Your task to perform on an android device: Open display settings Image 0: 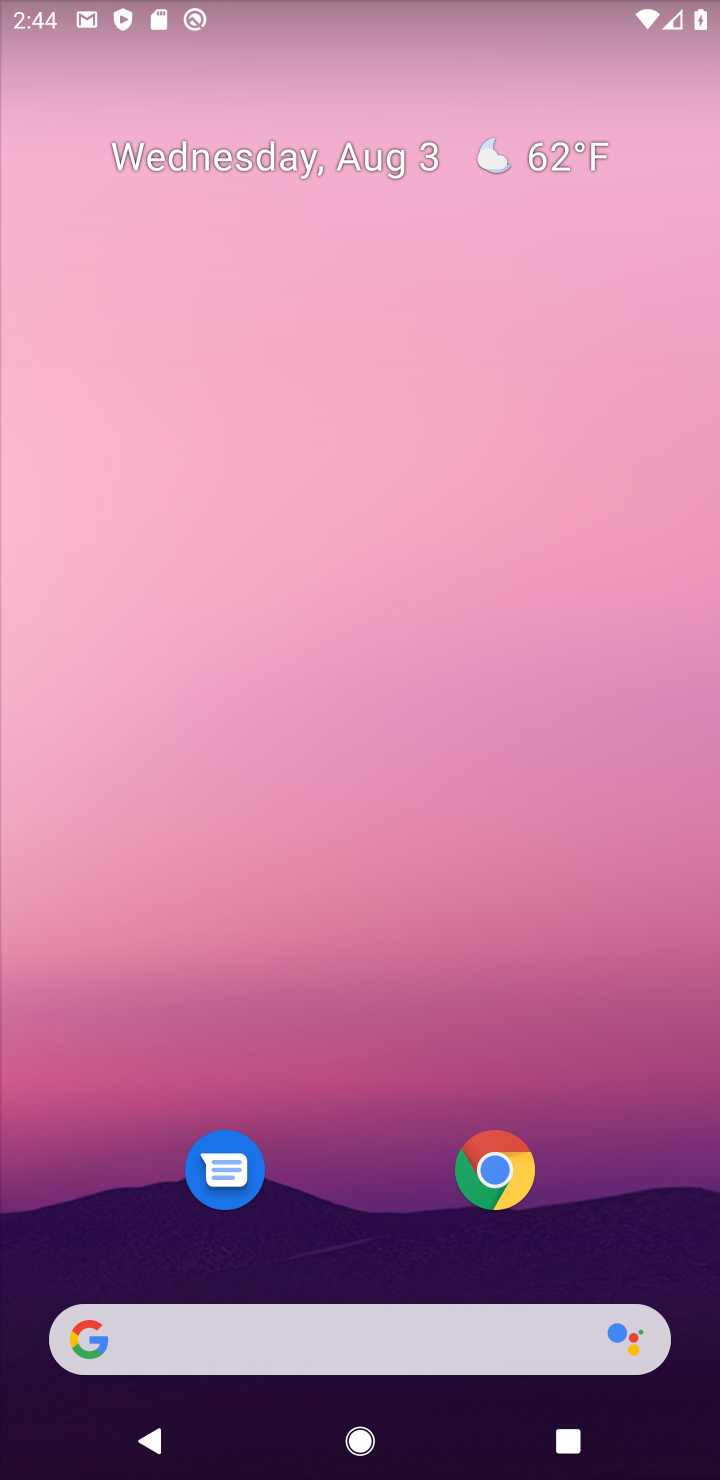
Step 0: drag from (220, 685) to (301, 357)
Your task to perform on an android device: Open display settings Image 1: 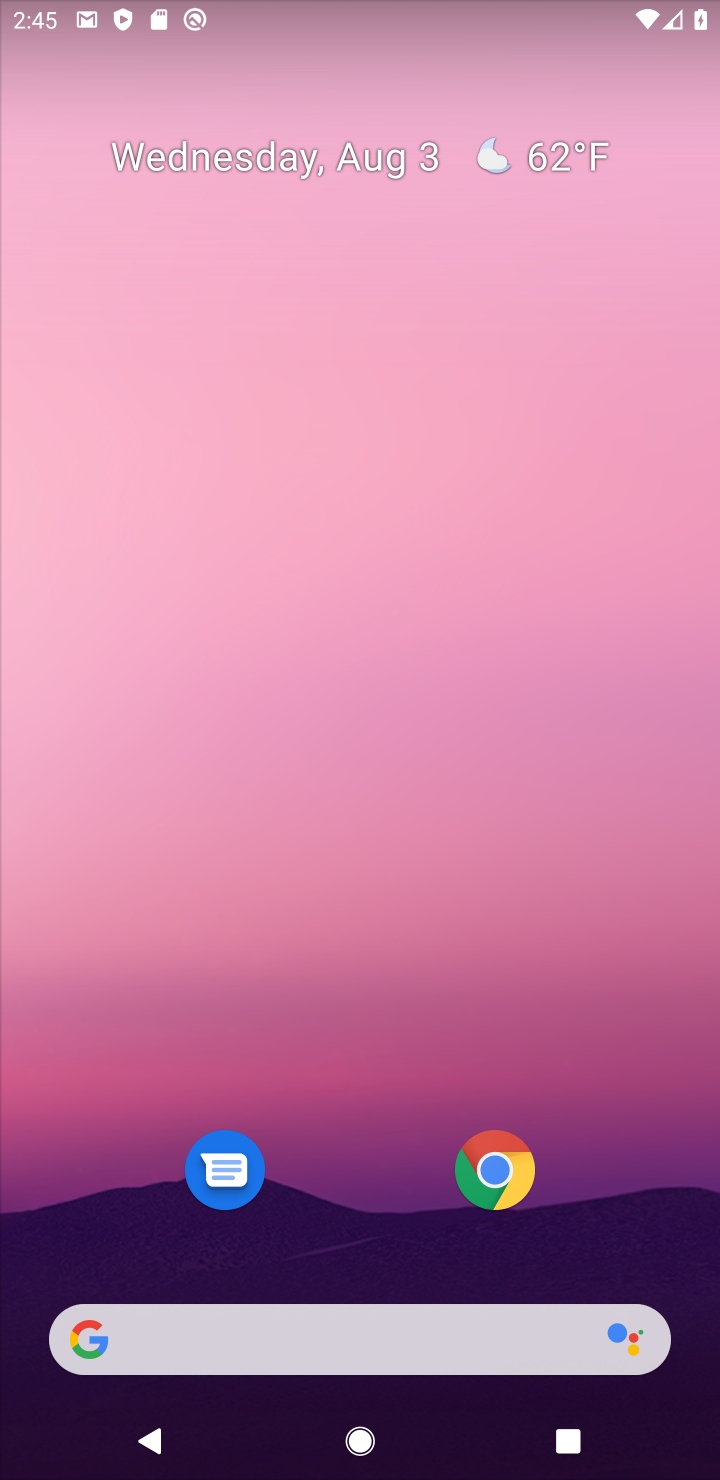
Step 1: click (467, 154)
Your task to perform on an android device: Open display settings Image 2: 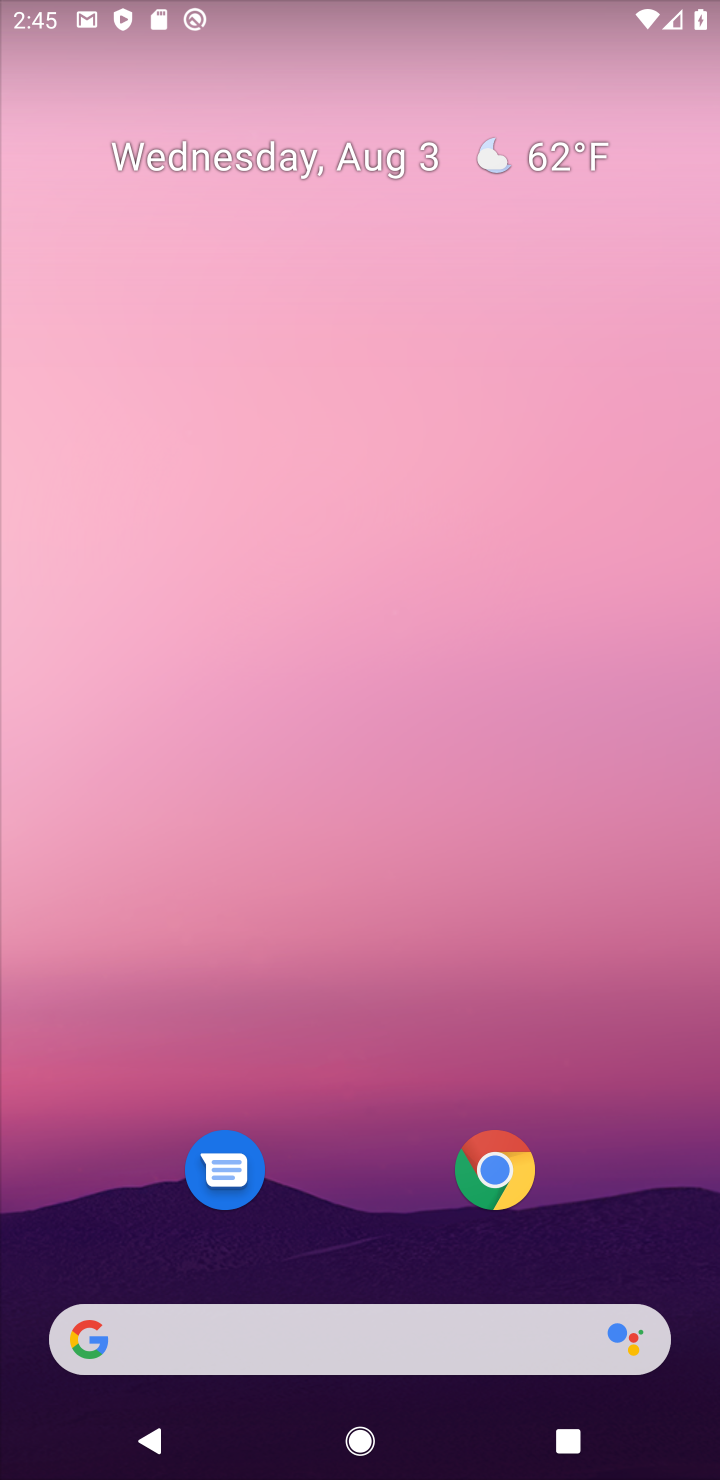
Step 2: drag from (363, 1162) to (402, 292)
Your task to perform on an android device: Open display settings Image 3: 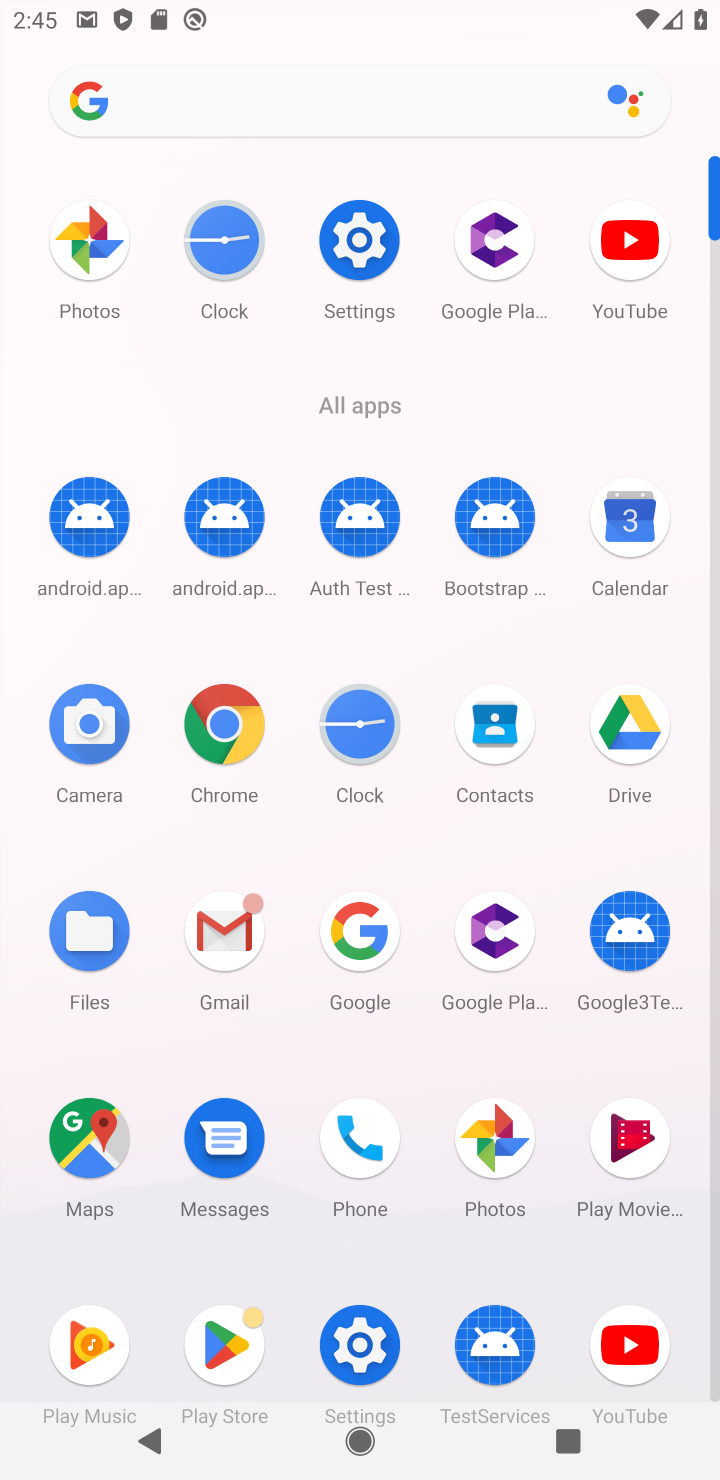
Step 3: click (367, 216)
Your task to perform on an android device: Open display settings Image 4: 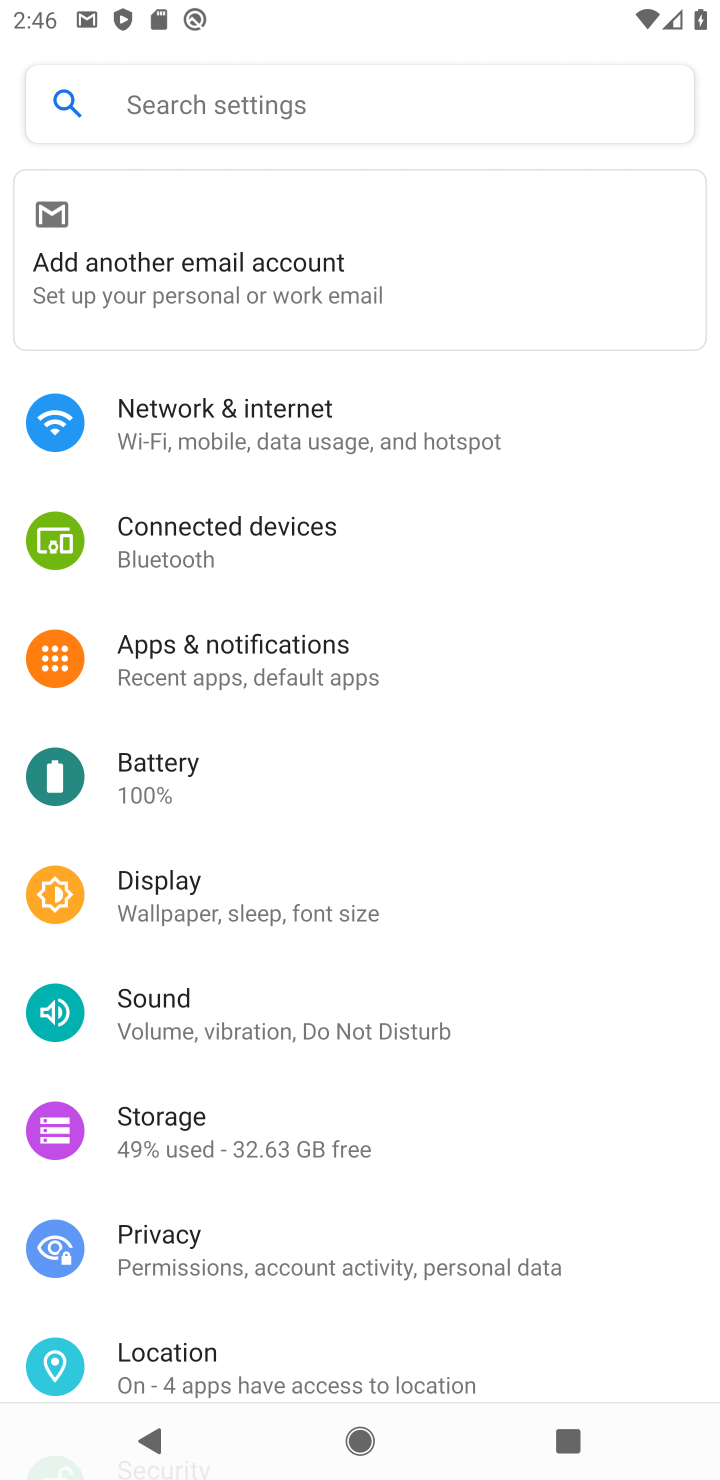
Step 4: click (229, 889)
Your task to perform on an android device: Open display settings Image 5: 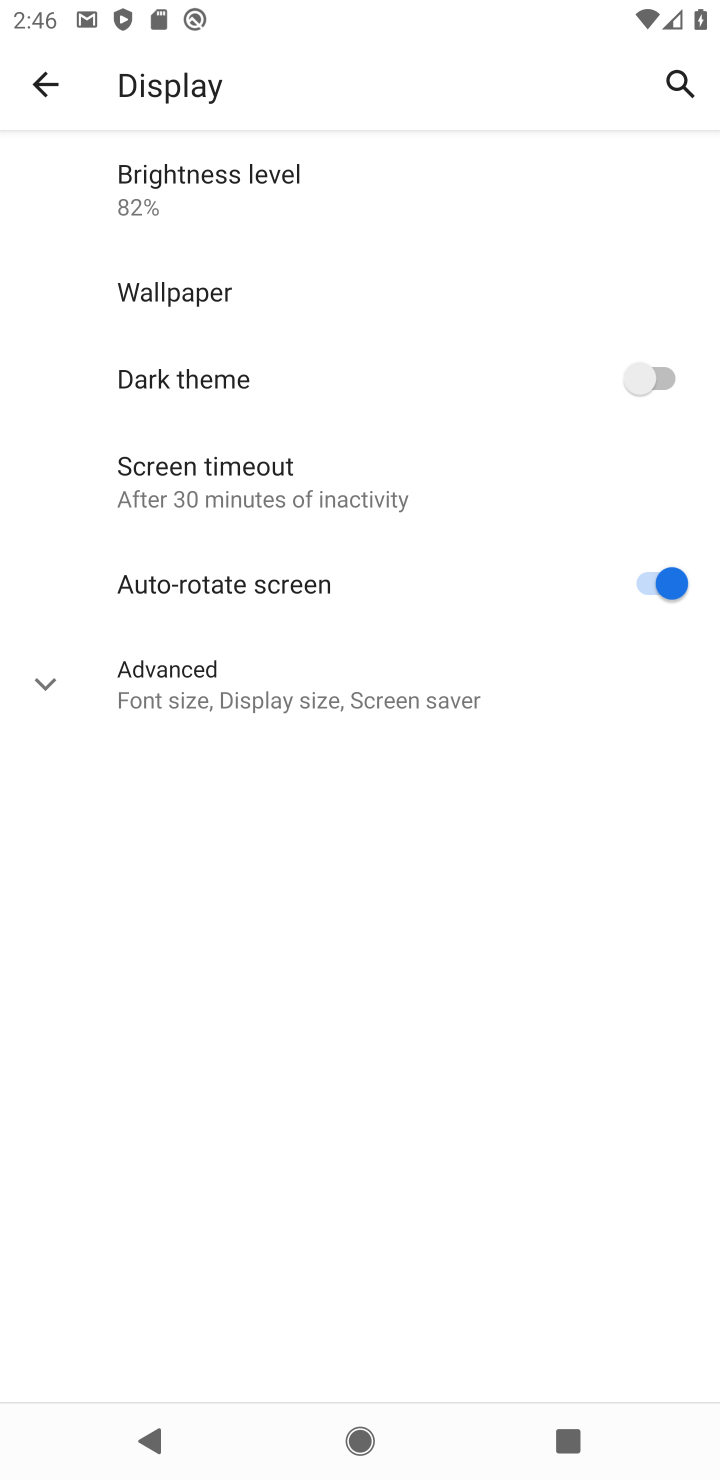
Step 5: task complete